Your task to perform on an android device: Open battery settings Image 0: 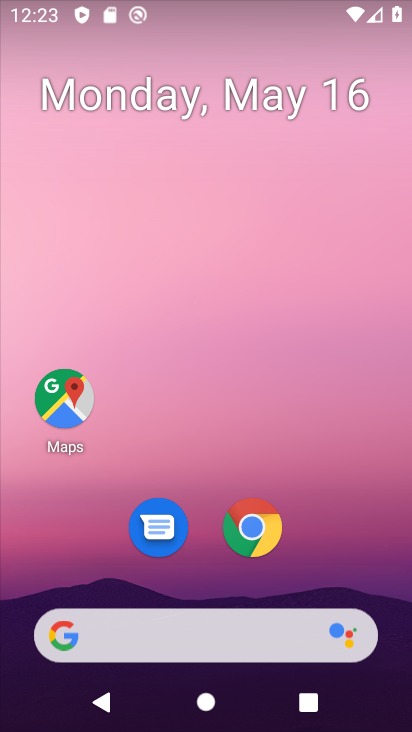
Step 0: drag from (169, 652) to (280, 114)
Your task to perform on an android device: Open battery settings Image 1: 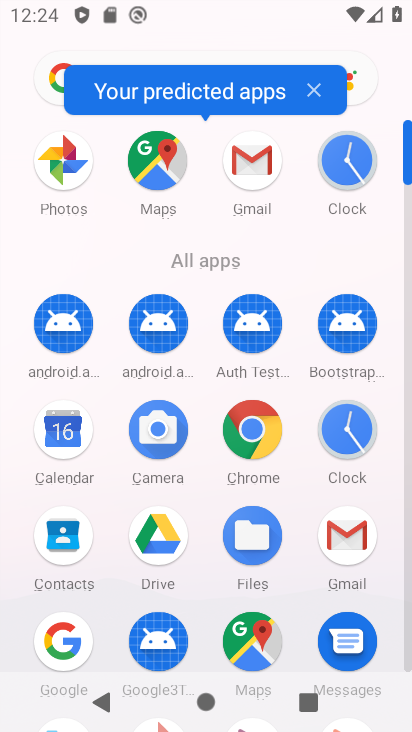
Step 1: drag from (153, 591) to (275, 194)
Your task to perform on an android device: Open battery settings Image 2: 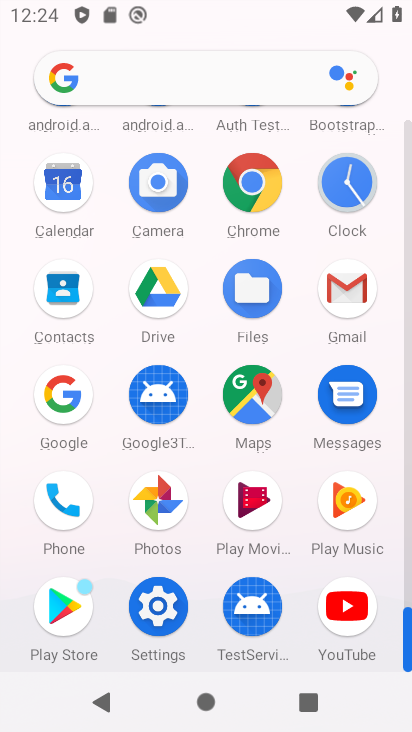
Step 2: click (171, 609)
Your task to perform on an android device: Open battery settings Image 3: 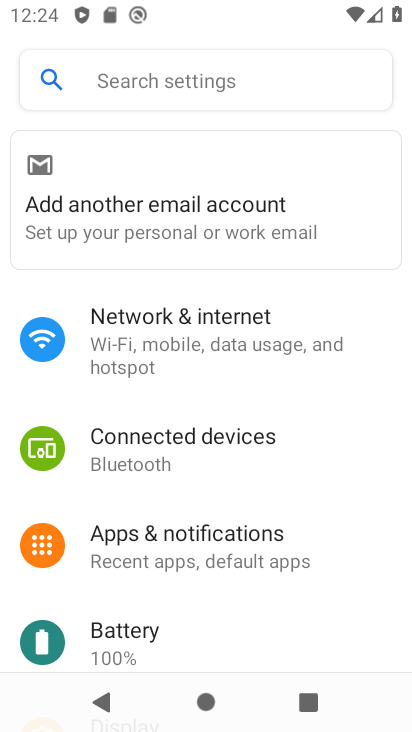
Step 3: click (117, 650)
Your task to perform on an android device: Open battery settings Image 4: 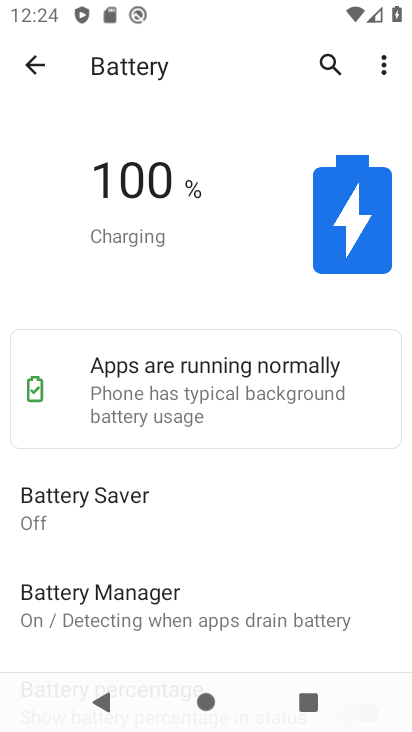
Step 4: task complete